Your task to perform on an android device: open app "Google Calendar" (install if not already installed) Image 0: 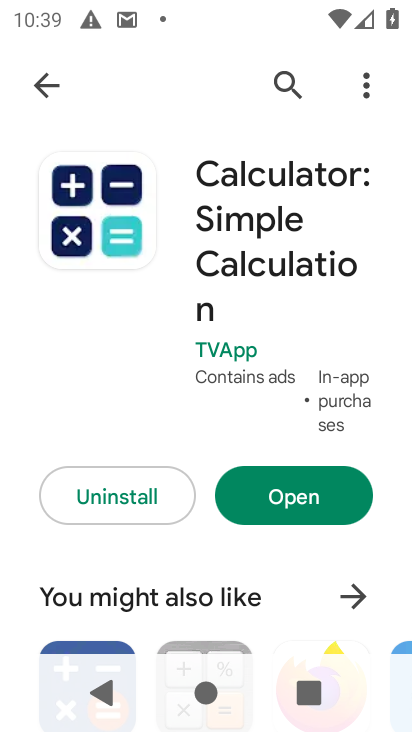
Step 0: press home button
Your task to perform on an android device: open app "Google Calendar" (install if not already installed) Image 1: 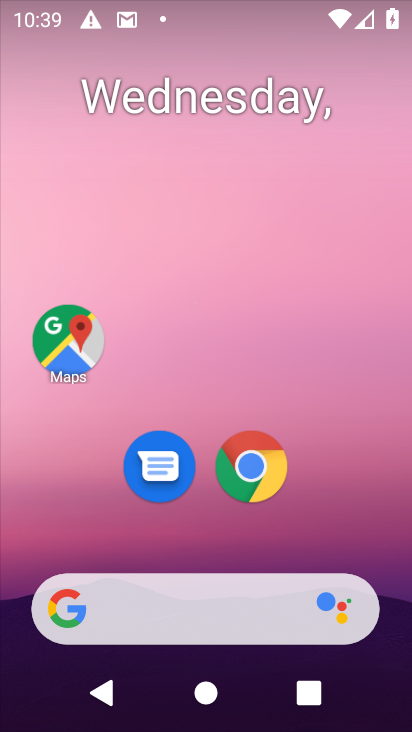
Step 1: drag from (199, 584) to (196, 239)
Your task to perform on an android device: open app "Google Calendar" (install if not already installed) Image 2: 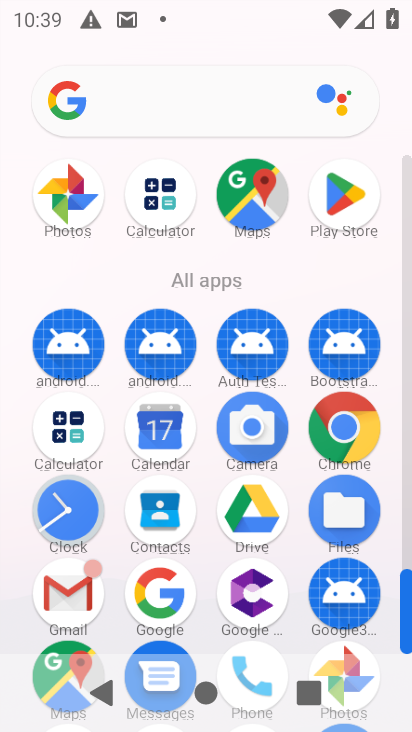
Step 2: click (351, 199)
Your task to perform on an android device: open app "Google Calendar" (install if not already installed) Image 3: 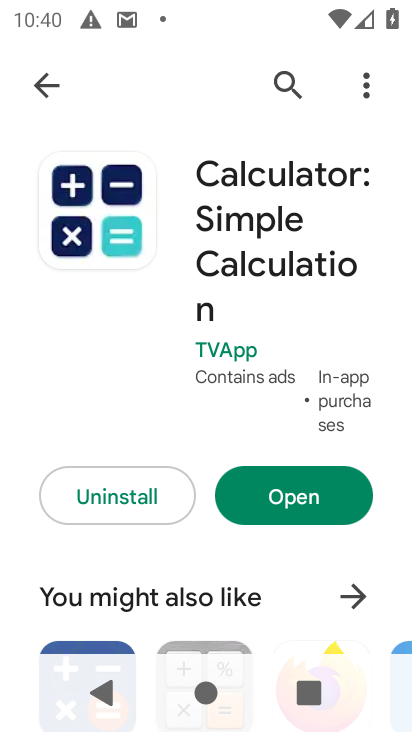
Step 3: press home button
Your task to perform on an android device: open app "Google Calendar" (install if not already installed) Image 4: 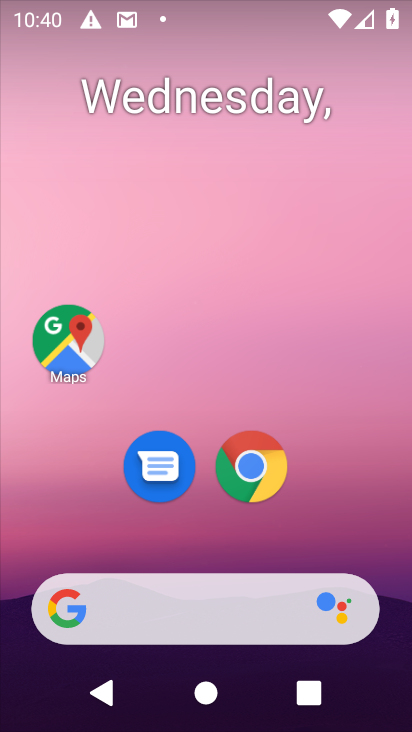
Step 4: drag from (212, 609) to (210, 106)
Your task to perform on an android device: open app "Google Calendar" (install if not already installed) Image 5: 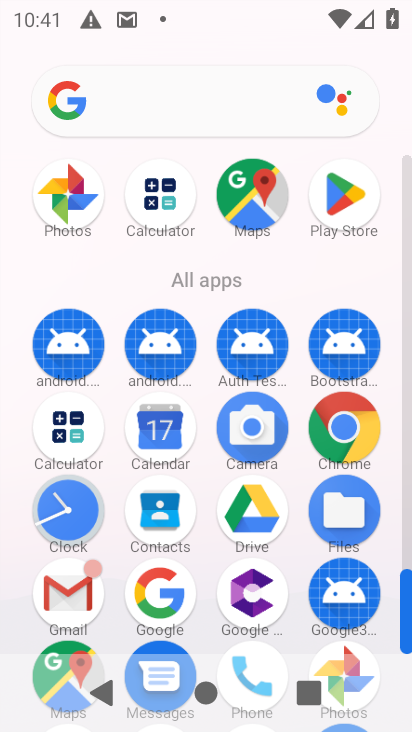
Step 5: click (153, 466)
Your task to perform on an android device: open app "Google Calendar" (install if not already installed) Image 6: 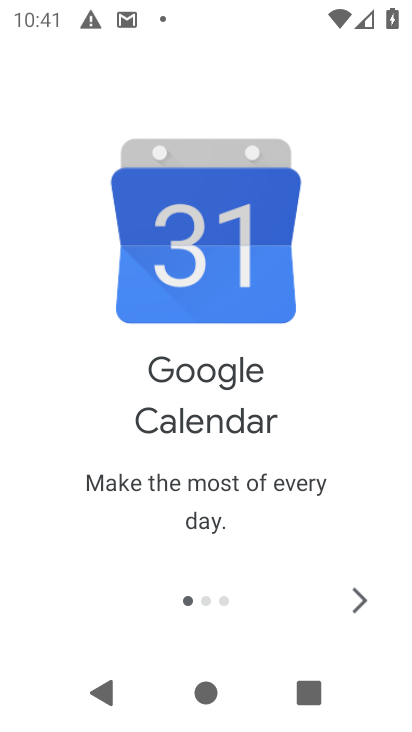
Step 6: click (365, 604)
Your task to perform on an android device: open app "Google Calendar" (install if not already installed) Image 7: 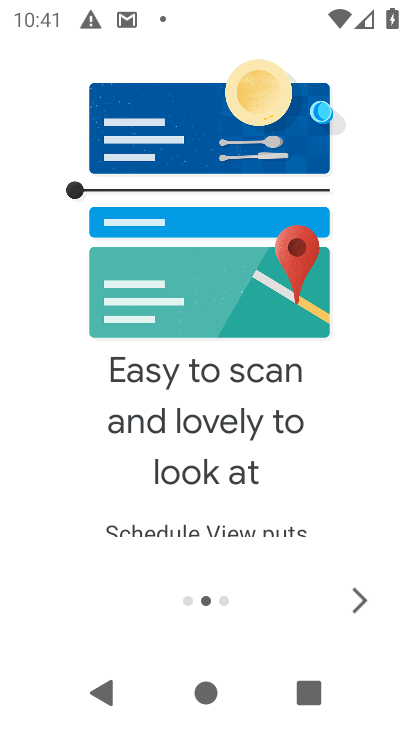
Step 7: click (369, 601)
Your task to perform on an android device: open app "Google Calendar" (install if not already installed) Image 8: 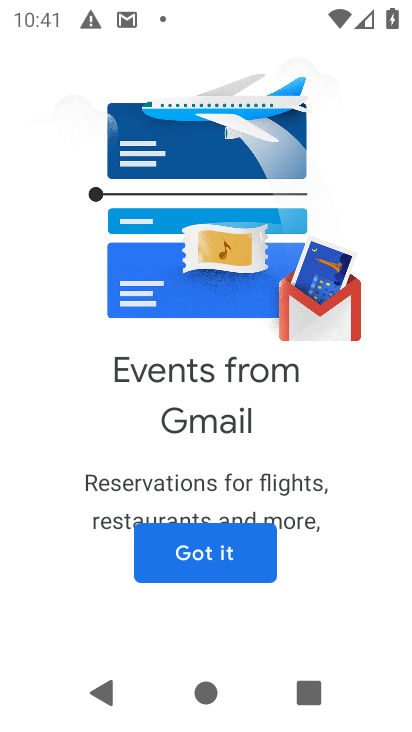
Step 8: click (214, 550)
Your task to perform on an android device: open app "Google Calendar" (install if not already installed) Image 9: 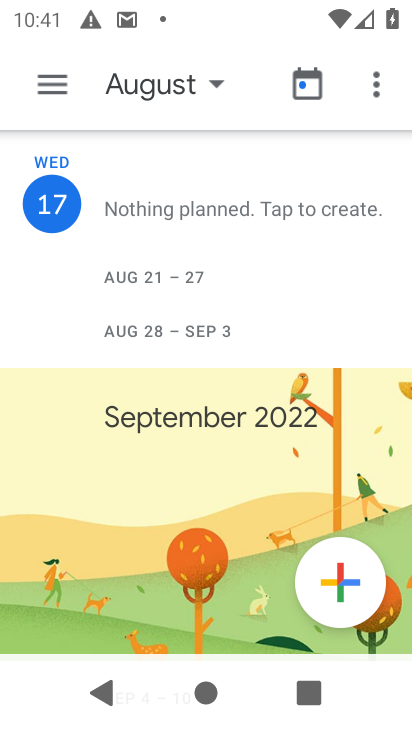
Step 9: task complete